Your task to perform on an android device: Is it going to rain today? Image 0: 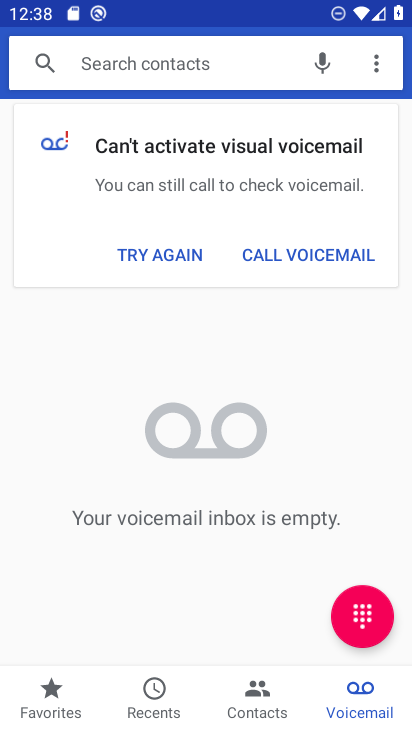
Step 0: press home button
Your task to perform on an android device: Is it going to rain today? Image 1: 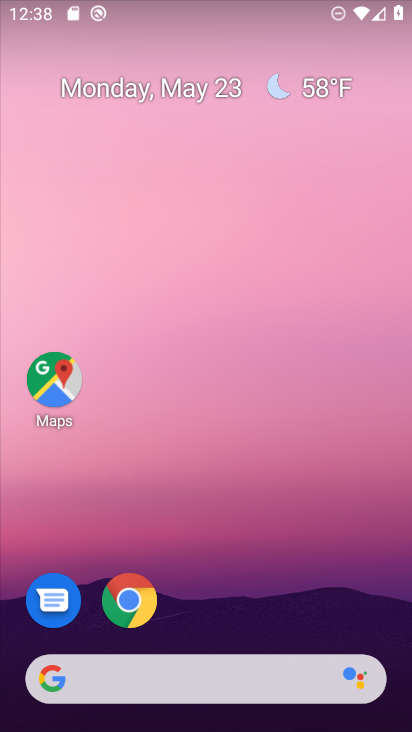
Step 1: drag from (348, 438) to (379, 46)
Your task to perform on an android device: Is it going to rain today? Image 2: 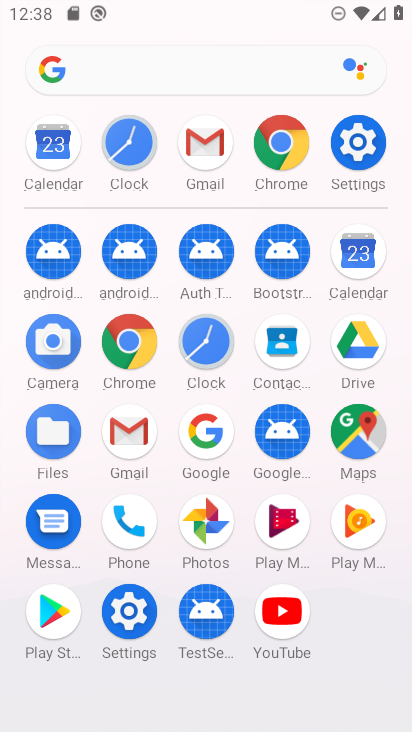
Step 2: press home button
Your task to perform on an android device: Is it going to rain today? Image 3: 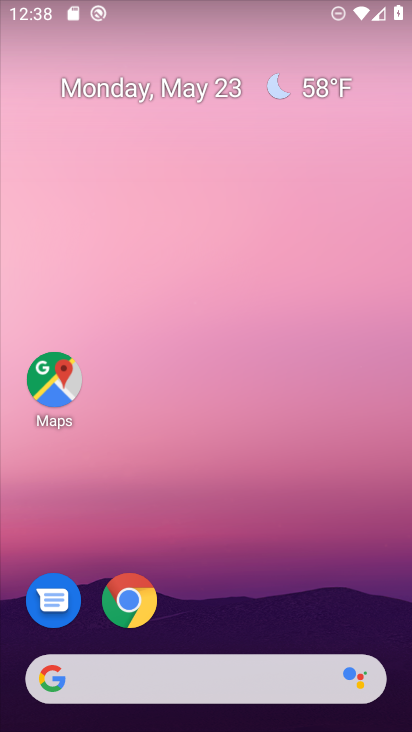
Step 3: click (347, 73)
Your task to perform on an android device: Is it going to rain today? Image 4: 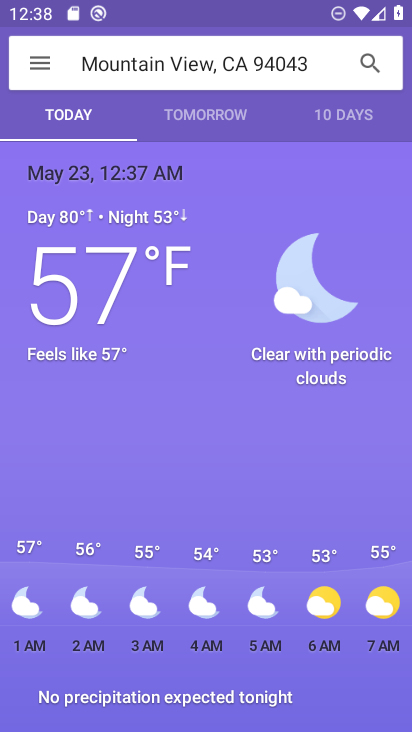
Step 4: task complete